Your task to perform on an android device: turn off javascript in the chrome app Image 0: 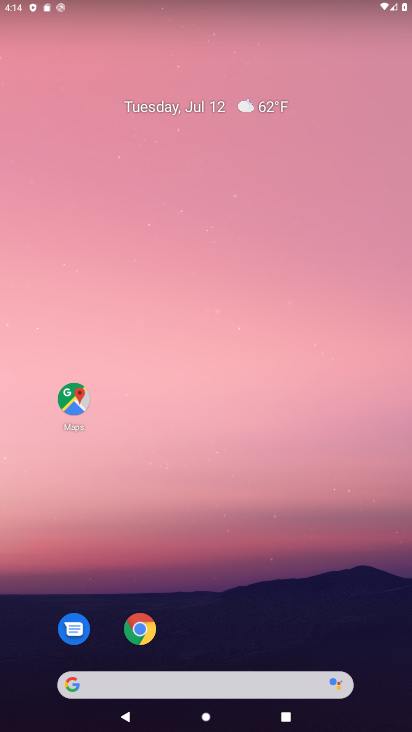
Step 0: click (149, 626)
Your task to perform on an android device: turn off javascript in the chrome app Image 1: 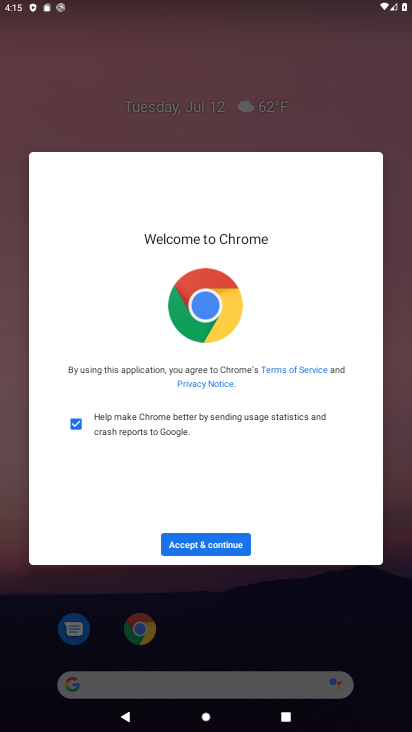
Step 1: click (192, 544)
Your task to perform on an android device: turn off javascript in the chrome app Image 2: 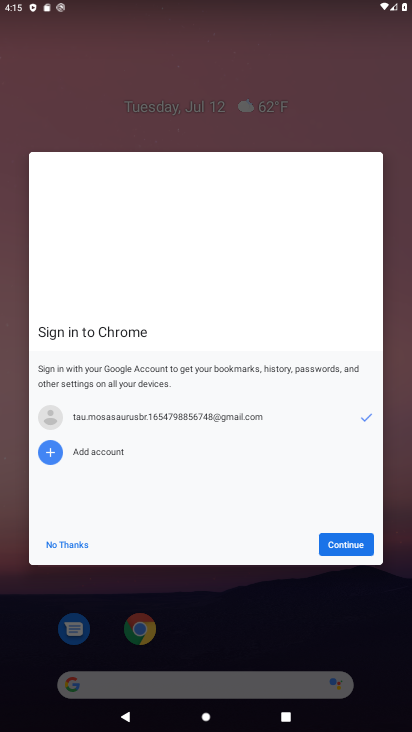
Step 2: click (343, 546)
Your task to perform on an android device: turn off javascript in the chrome app Image 3: 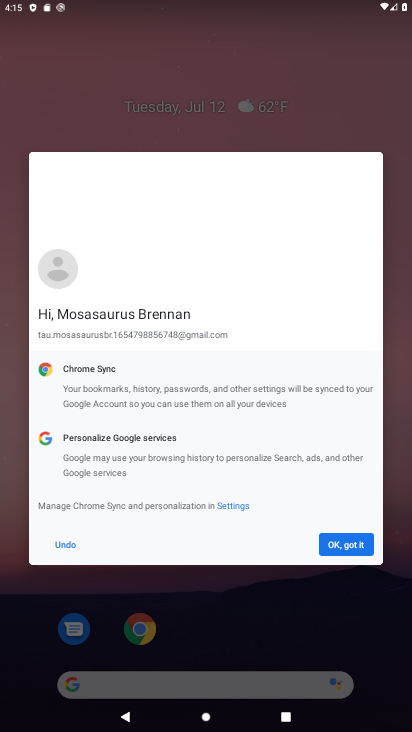
Step 3: click (342, 548)
Your task to perform on an android device: turn off javascript in the chrome app Image 4: 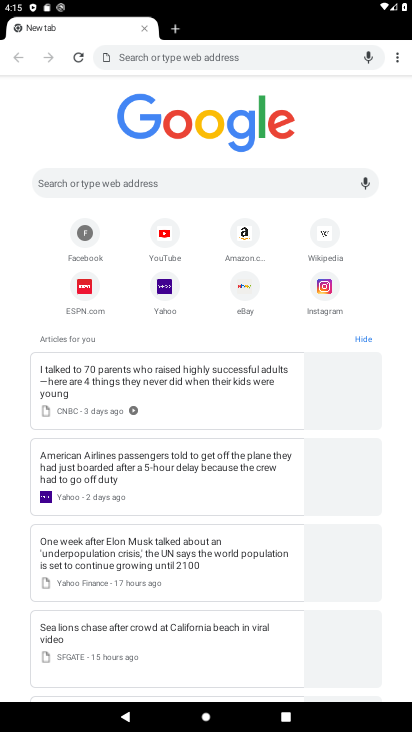
Step 4: drag from (399, 57) to (283, 265)
Your task to perform on an android device: turn off javascript in the chrome app Image 5: 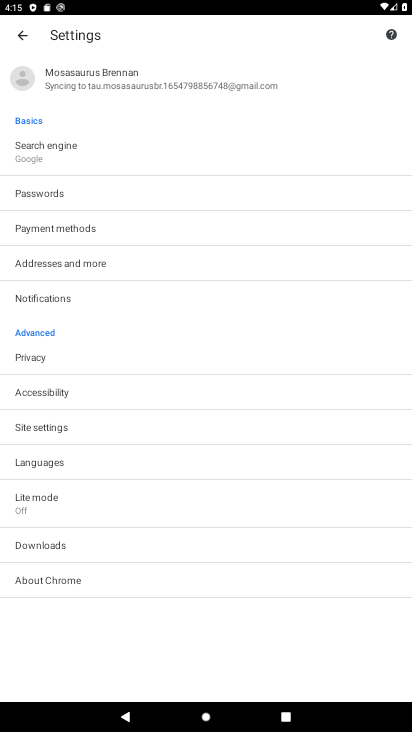
Step 5: click (88, 430)
Your task to perform on an android device: turn off javascript in the chrome app Image 6: 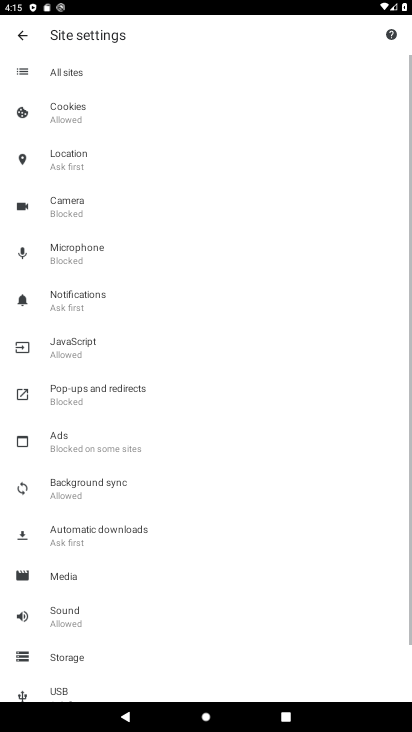
Step 6: click (59, 342)
Your task to perform on an android device: turn off javascript in the chrome app Image 7: 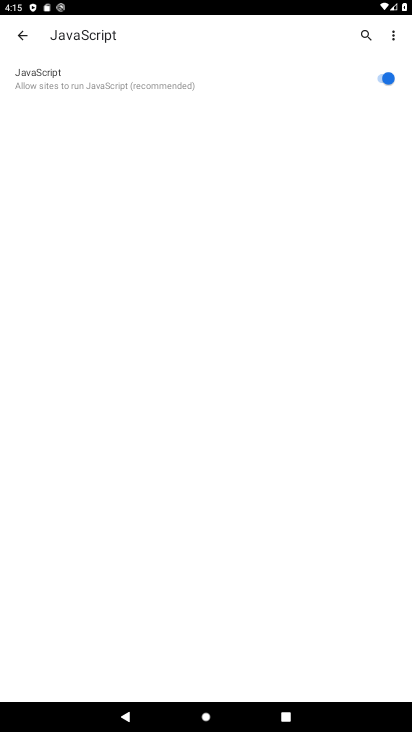
Step 7: click (377, 79)
Your task to perform on an android device: turn off javascript in the chrome app Image 8: 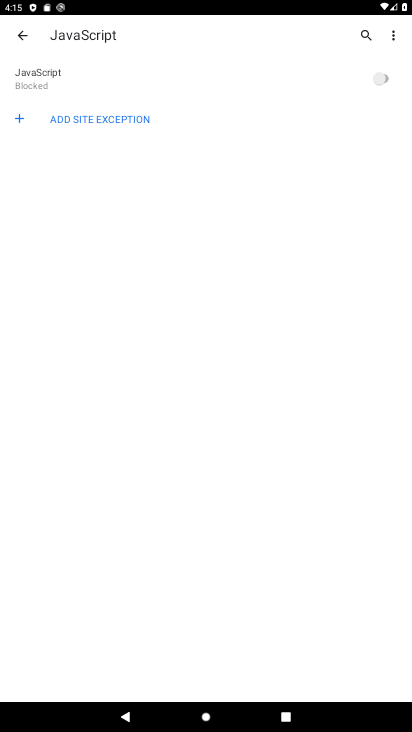
Step 8: task complete